Your task to perform on an android device: open wifi settings Image 0: 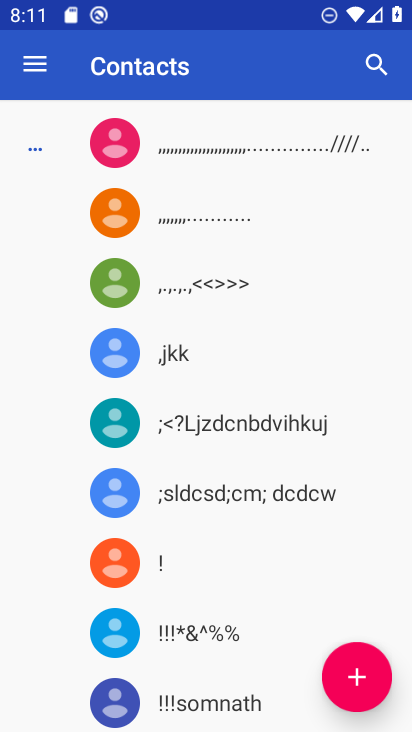
Step 0: drag from (192, 13) to (167, 561)
Your task to perform on an android device: open wifi settings Image 1: 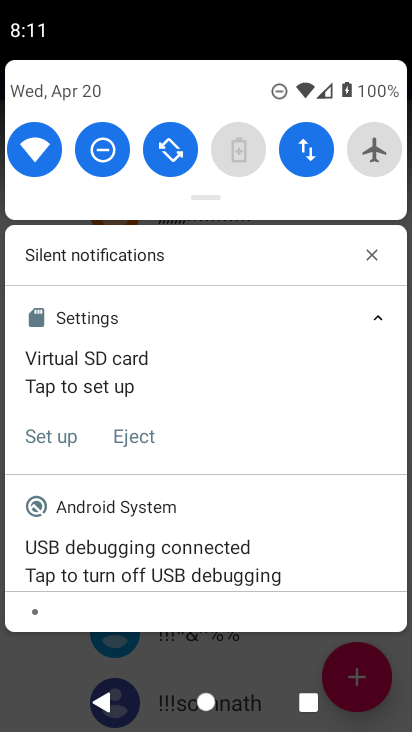
Step 1: click (41, 162)
Your task to perform on an android device: open wifi settings Image 2: 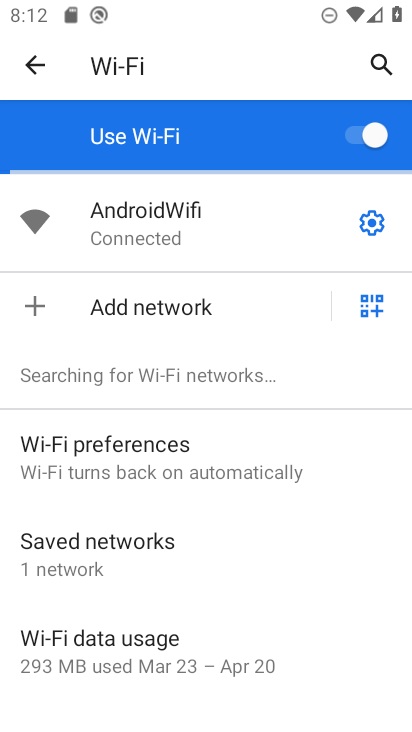
Step 2: task complete